Your task to perform on an android device: turn on priority inbox in the gmail app Image 0: 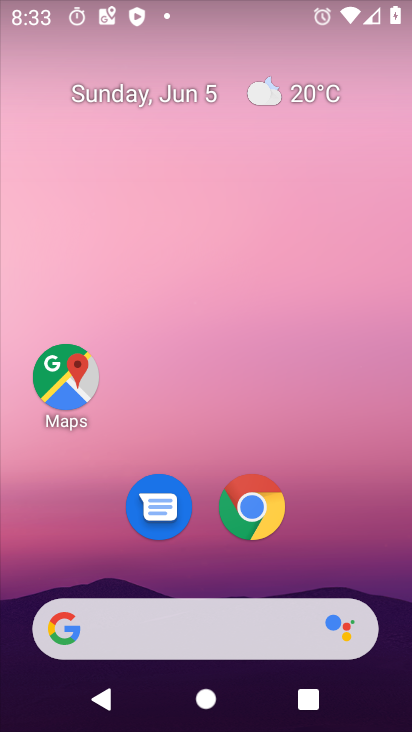
Step 0: drag from (338, 528) to (255, 4)
Your task to perform on an android device: turn on priority inbox in the gmail app Image 1: 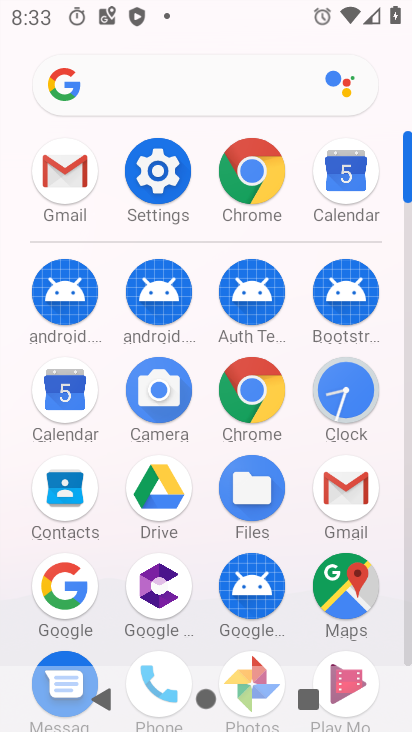
Step 1: drag from (1, 586) to (29, 204)
Your task to perform on an android device: turn on priority inbox in the gmail app Image 2: 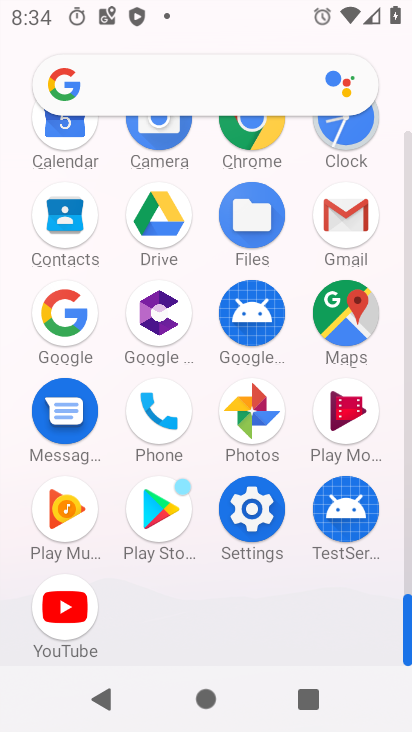
Step 2: click (344, 214)
Your task to perform on an android device: turn on priority inbox in the gmail app Image 3: 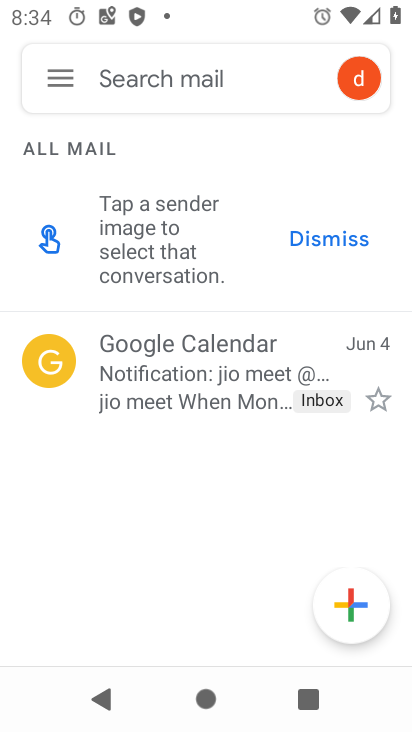
Step 3: click (57, 69)
Your task to perform on an android device: turn on priority inbox in the gmail app Image 4: 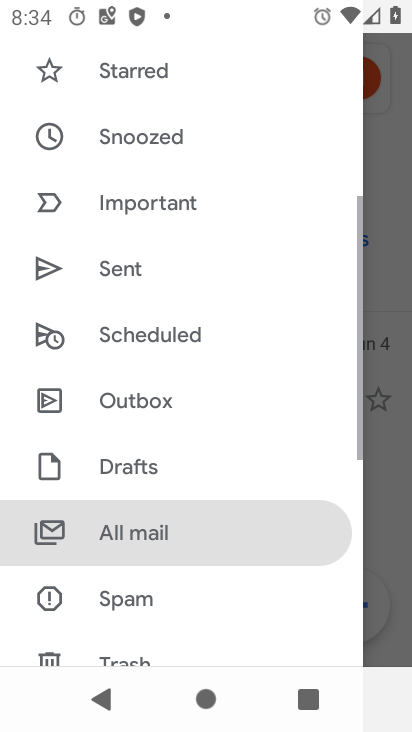
Step 4: drag from (210, 567) to (291, 106)
Your task to perform on an android device: turn on priority inbox in the gmail app Image 5: 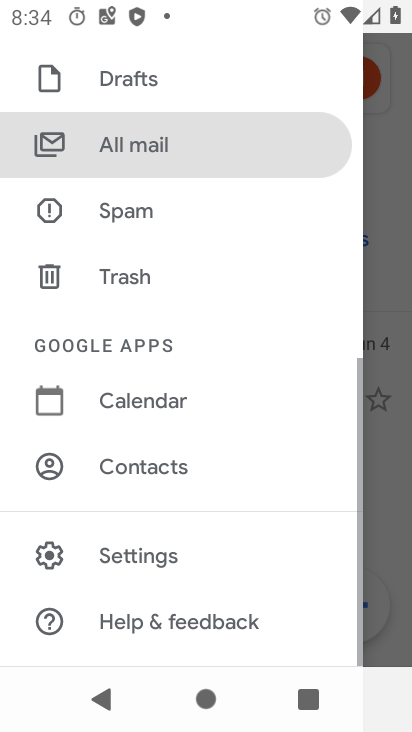
Step 5: click (156, 547)
Your task to perform on an android device: turn on priority inbox in the gmail app Image 6: 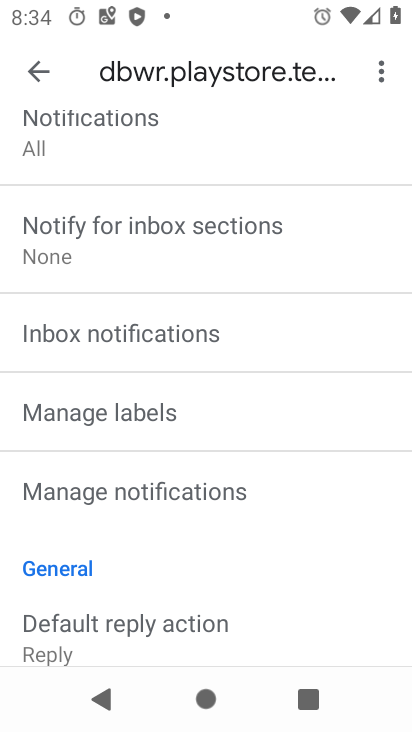
Step 6: task complete